Your task to perform on an android device: toggle notifications settings in the gmail app Image 0: 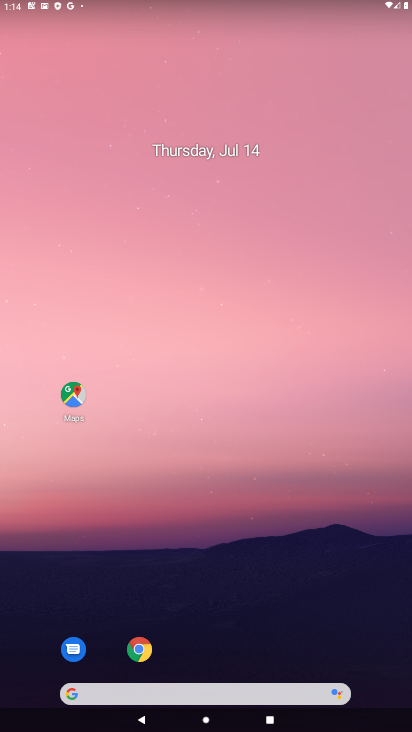
Step 0: drag from (370, 665) to (174, 38)
Your task to perform on an android device: toggle notifications settings in the gmail app Image 1: 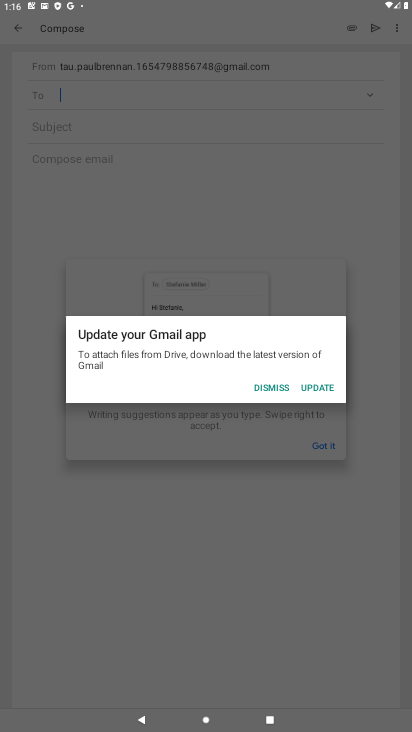
Step 1: press home button
Your task to perform on an android device: toggle notifications settings in the gmail app Image 2: 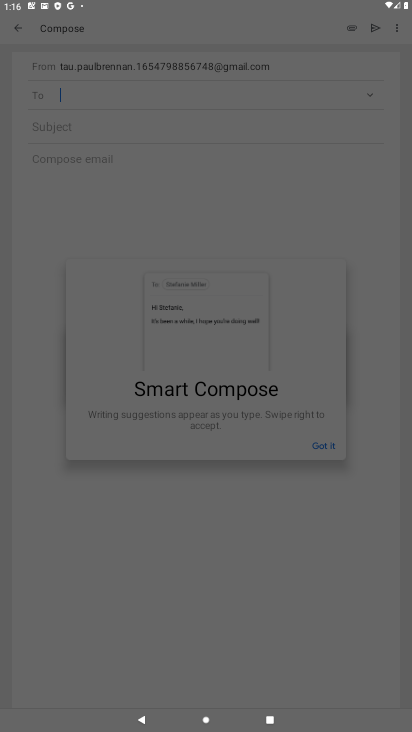
Step 2: drag from (378, 654) to (207, 17)
Your task to perform on an android device: toggle notifications settings in the gmail app Image 3: 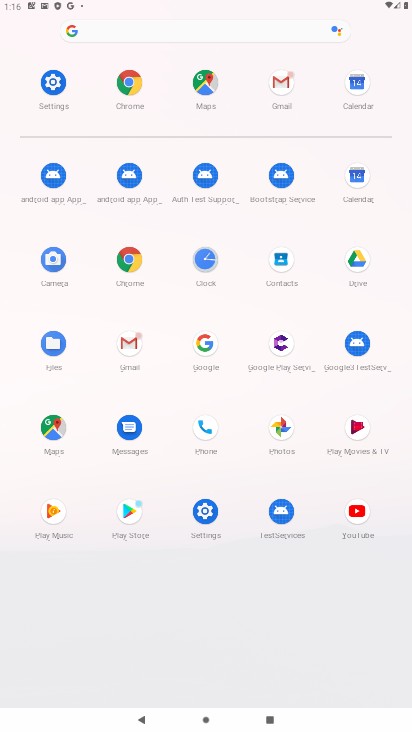
Step 3: click (135, 350)
Your task to perform on an android device: toggle notifications settings in the gmail app Image 4: 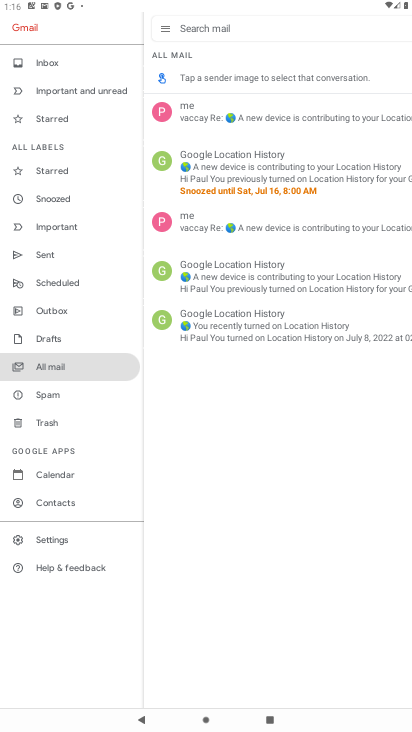
Step 4: click (57, 529)
Your task to perform on an android device: toggle notifications settings in the gmail app Image 5: 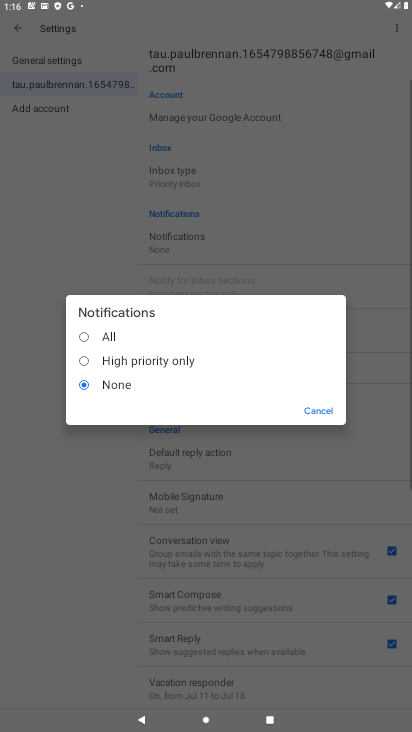
Step 5: click (306, 411)
Your task to perform on an android device: toggle notifications settings in the gmail app Image 6: 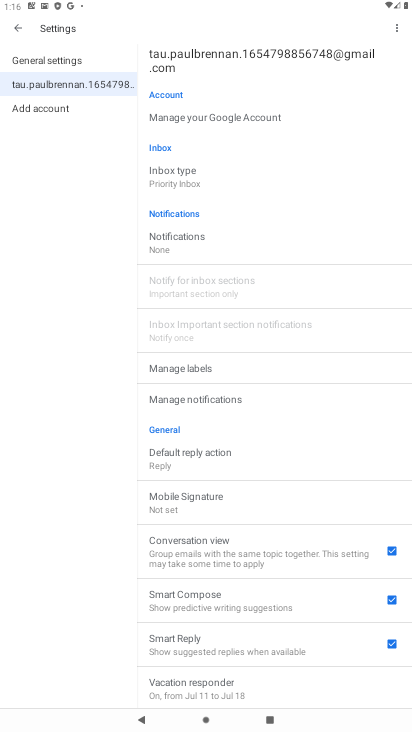
Step 6: click (179, 242)
Your task to perform on an android device: toggle notifications settings in the gmail app Image 7: 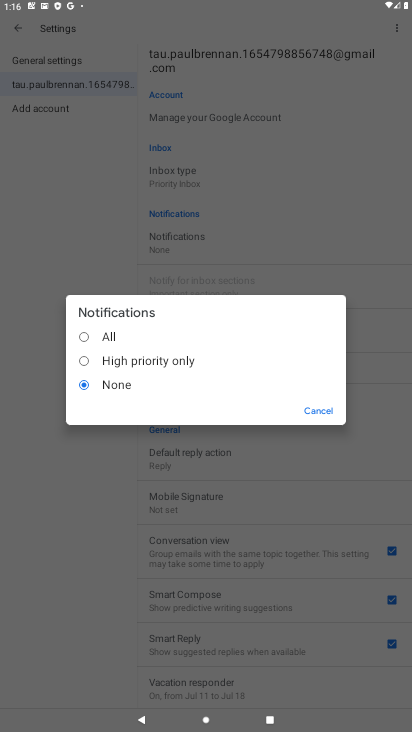
Step 7: click (93, 336)
Your task to perform on an android device: toggle notifications settings in the gmail app Image 8: 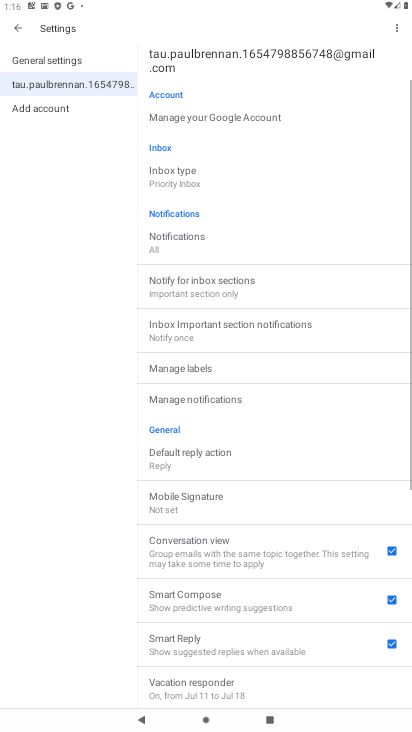
Step 8: task complete